Your task to perform on an android device: Go to network settings Image 0: 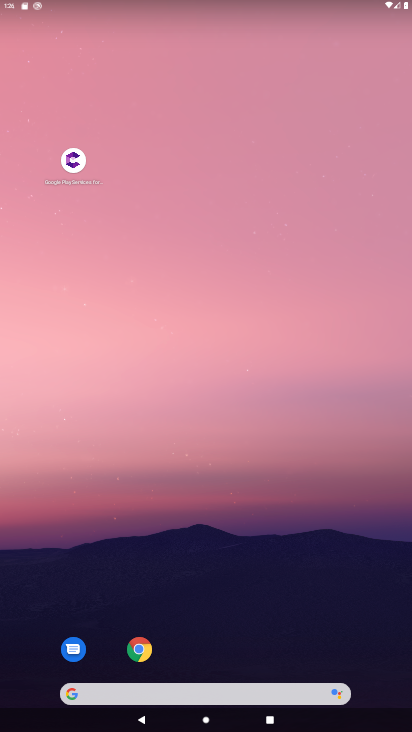
Step 0: drag from (260, 641) to (260, 112)
Your task to perform on an android device: Go to network settings Image 1: 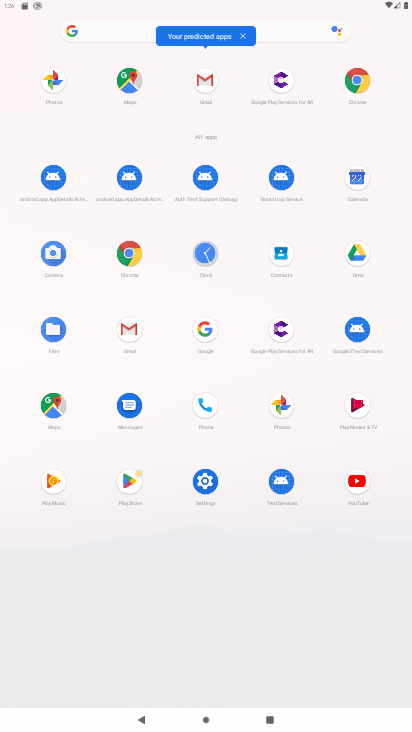
Step 1: click (206, 476)
Your task to perform on an android device: Go to network settings Image 2: 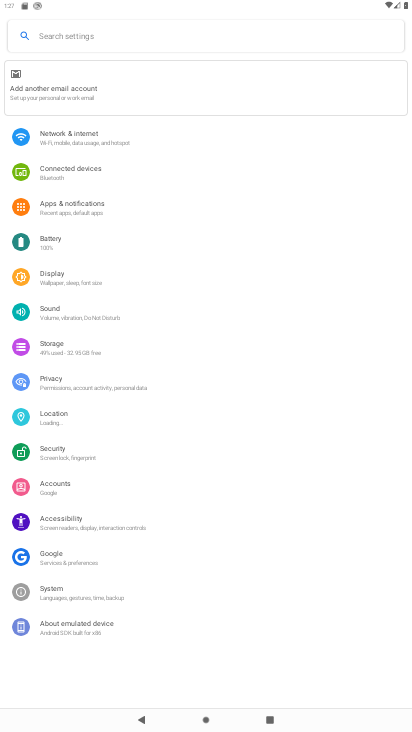
Step 2: click (132, 128)
Your task to perform on an android device: Go to network settings Image 3: 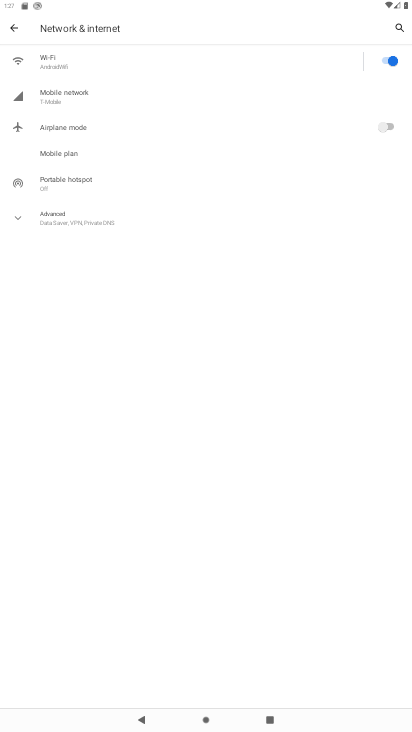
Step 3: click (139, 102)
Your task to perform on an android device: Go to network settings Image 4: 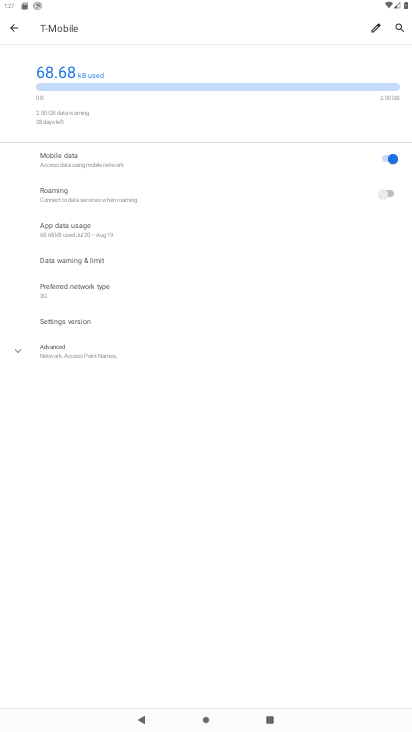
Step 4: task complete